Your task to perform on an android device: turn notification dots on Image 0: 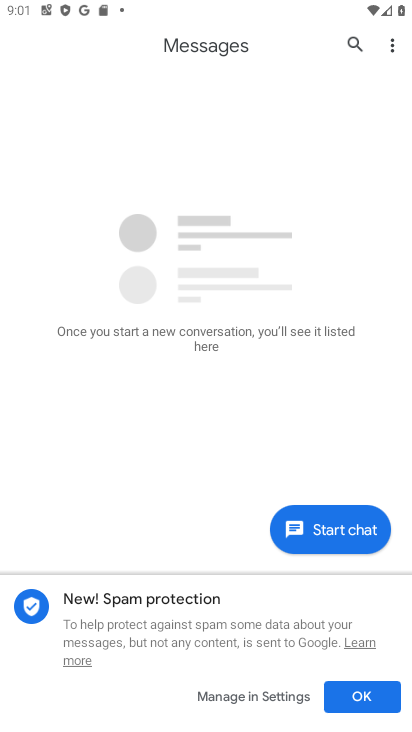
Step 0: press home button
Your task to perform on an android device: turn notification dots on Image 1: 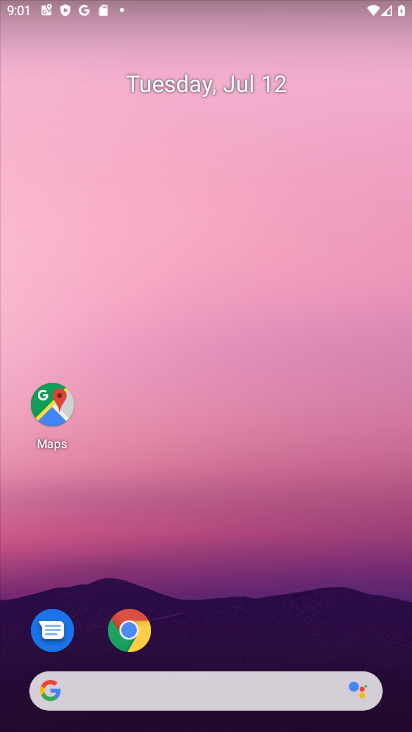
Step 1: drag from (220, 596) to (229, 62)
Your task to perform on an android device: turn notification dots on Image 2: 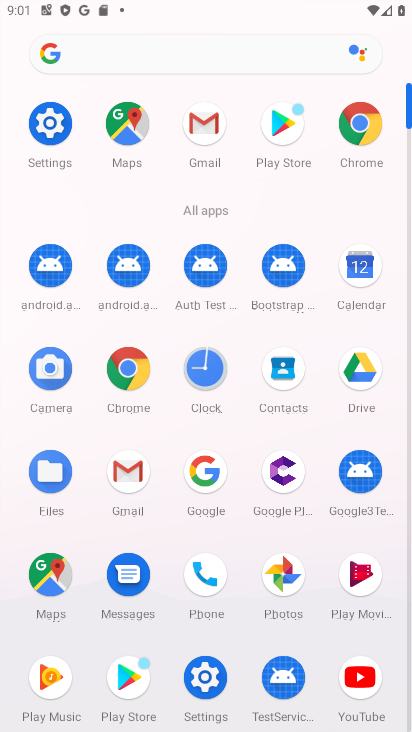
Step 2: click (52, 124)
Your task to perform on an android device: turn notification dots on Image 3: 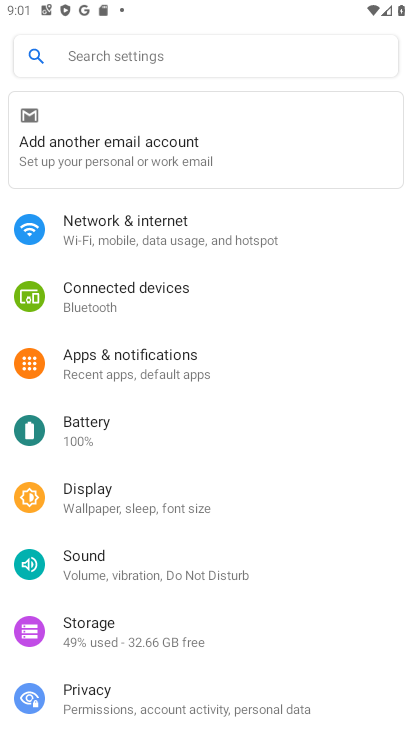
Step 3: click (174, 377)
Your task to perform on an android device: turn notification dots on Image 4: 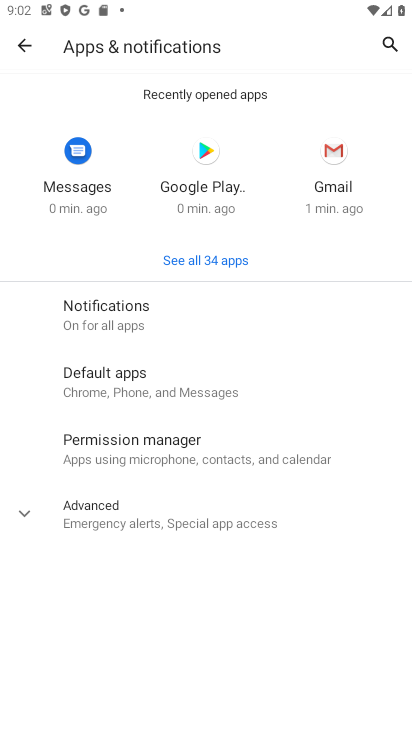
Step 4: click (151, 314)
Your task to perform on an android device: turn notification dots on Image 5: 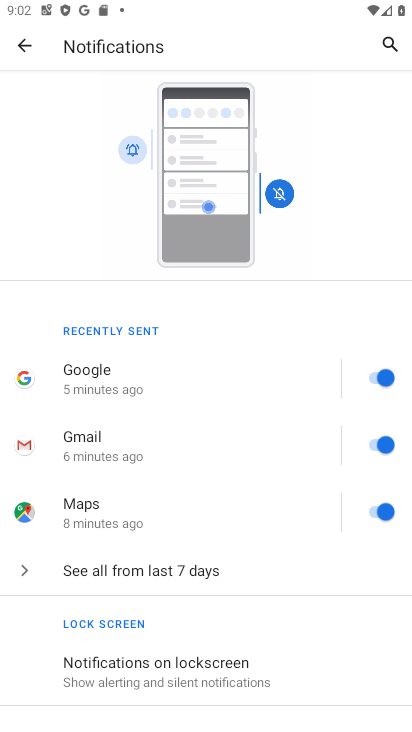
Step 5: drag from (197, 582) to (253, 83)
Your task to perform on an android device: turn notification dots on Image 6: 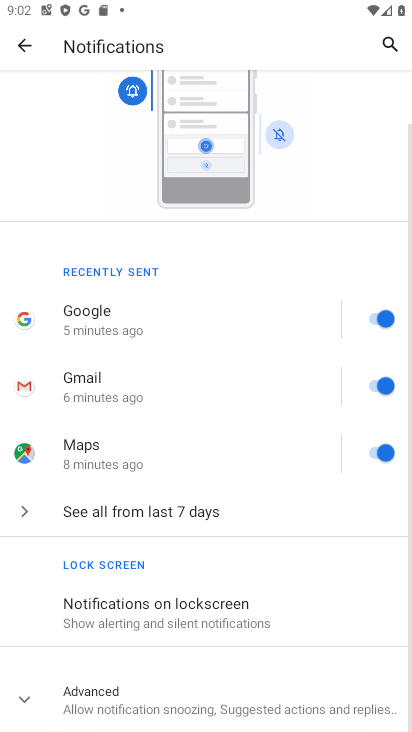
Step 6: click (77, 715)
Your task to perform on an android device: turn notification dots on Image 7: 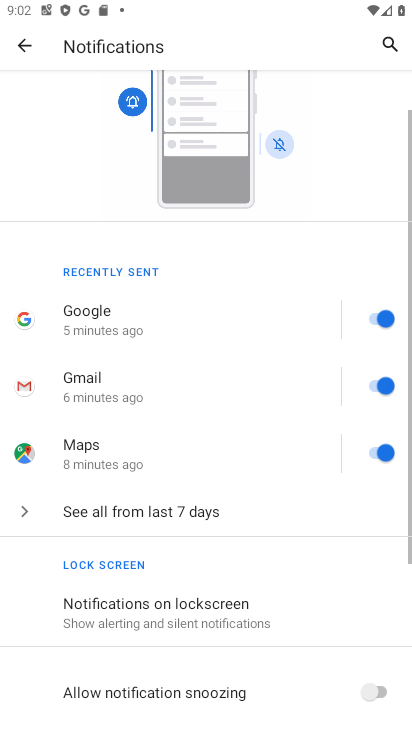
Step 7: task complete